Your task to perform on an android device: turn off smart reply in the gmail app Image 0: 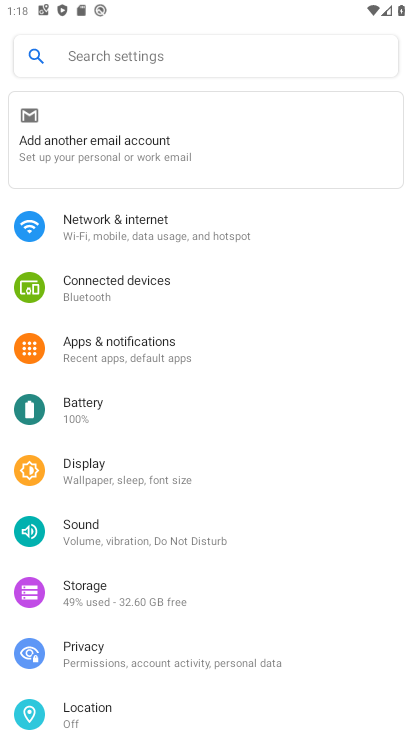
Step 0: press home button
Your task to perform on an android device: turn off smart reply in the gmail app Image 1: 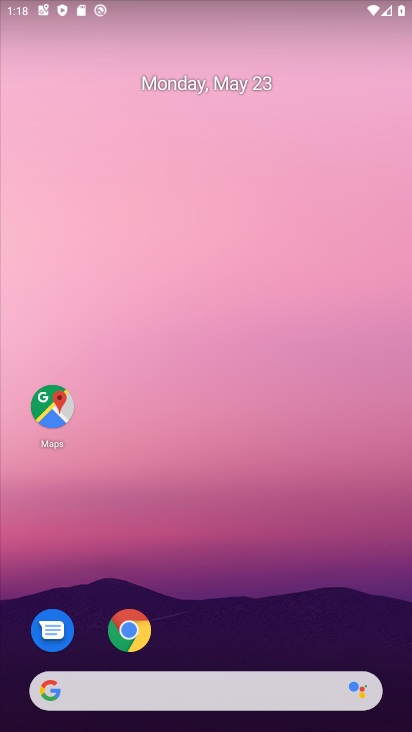
Step 1: drag from (253, 628) to (299, 182)
Your task to perform on an android device: turn off smart reply in the gmail app Image 2: 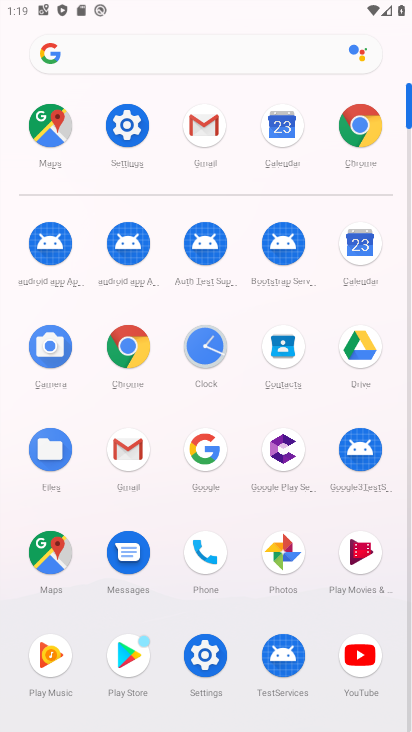
Step 2: click (134, 459)
Your task to perform on an android device: turn off smart reply in the gmail app Image 3: 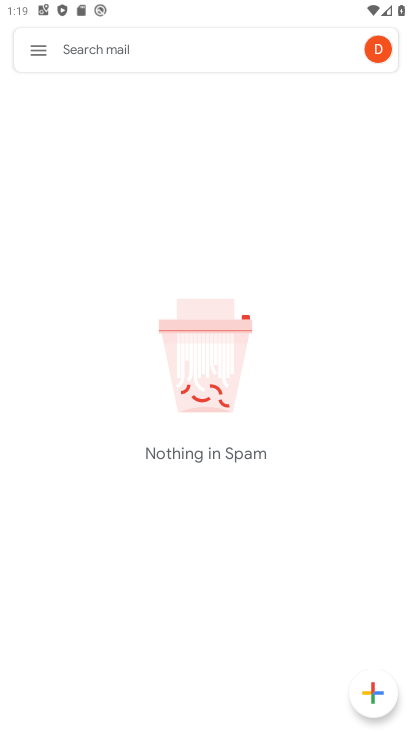
Step 3: click (33, 54)
Your task to perform on an android device: turn off smart reply in the gmail app Image 4: 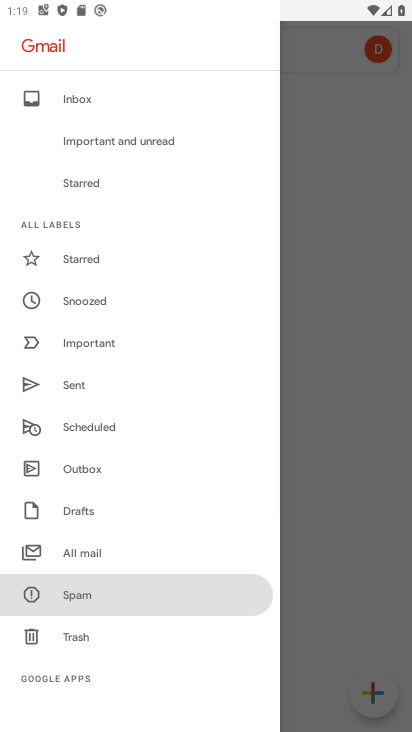
Step 4: drag from (82, 683) to (154, 382)
Your task to perform on an android device: turn off smart reply in the gmail app Image 5: 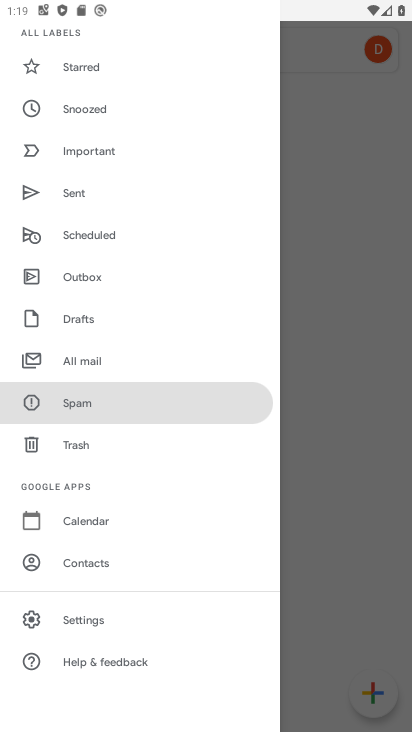
Step 5: click (92, 630)
Your task to perform on an android device: turn off smart reply in the gmail app Image 6: 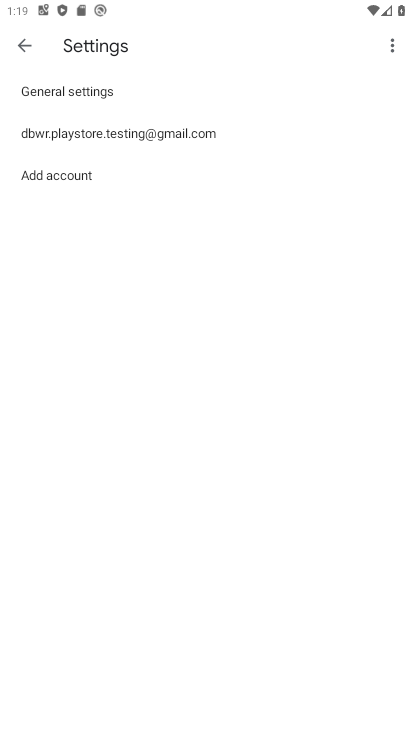
Step 6: click (214, 137)
Your task to perform on an android device: turn off smart reply in the gmail app Image 7: 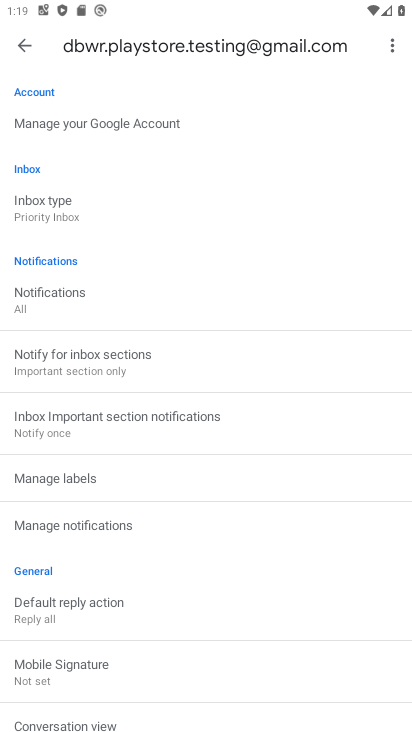
Step 7: drag from (164, 541) to (219, 282)
Your task to perform on an android device: turn off smart reply in the gmail app Image 8: 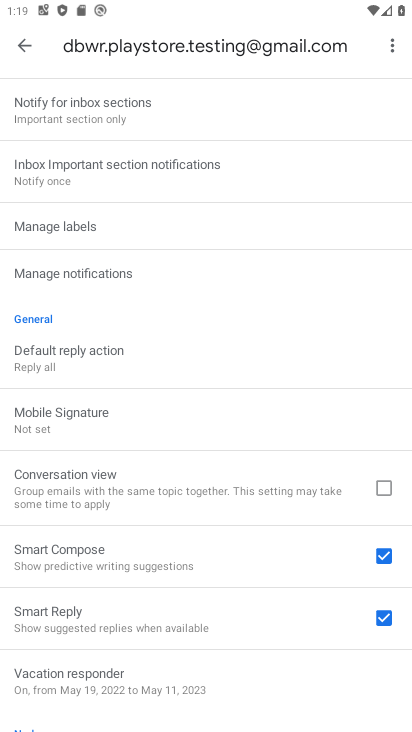
Step 8: click (391, 619)
Your task to perform on an android device: turn off smart reply in the gmail app Image 9: 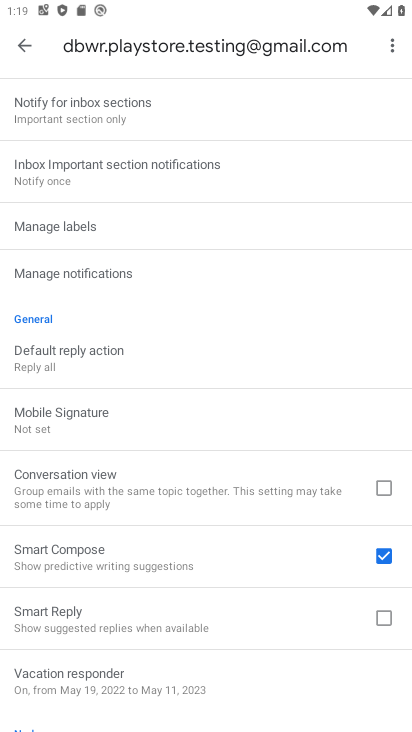
Step 9: task complete